Your task to perform on an android device: open wifi settings Image 0: 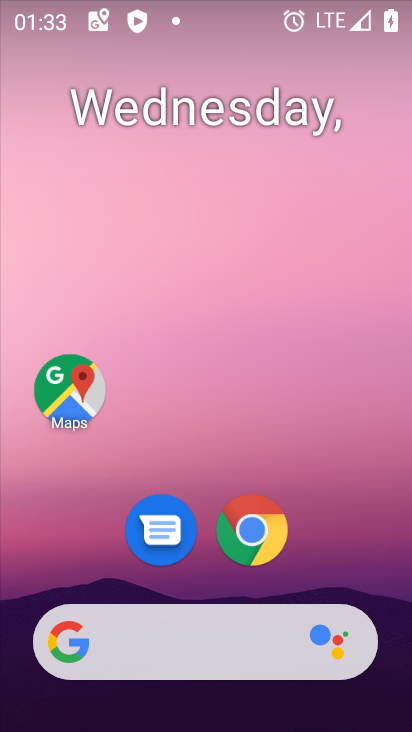
Step 0: drag from (368, 604) to (374, 115)
Your task to perform on an android device: open wifi settings Image 1: 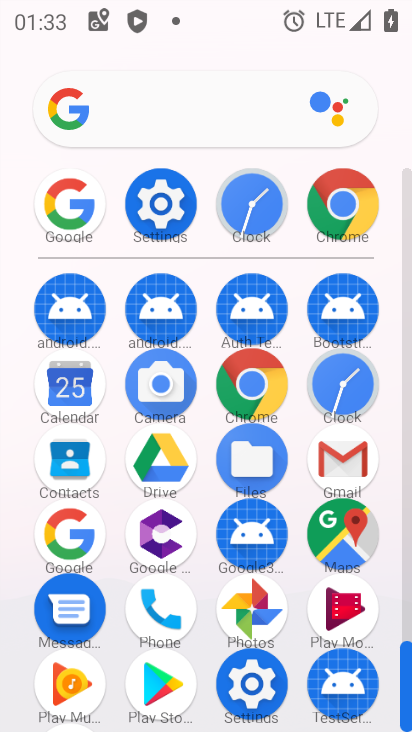
Step 1: click (188, 202)
Your task to perform on an android device: open wifi settings Image 2: 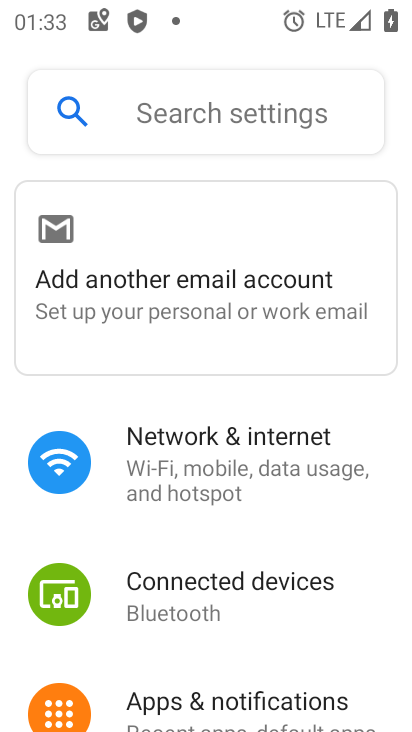
Step 2: click (204, 455)
Your task to perform on an android device: open wifi settings Image 3: 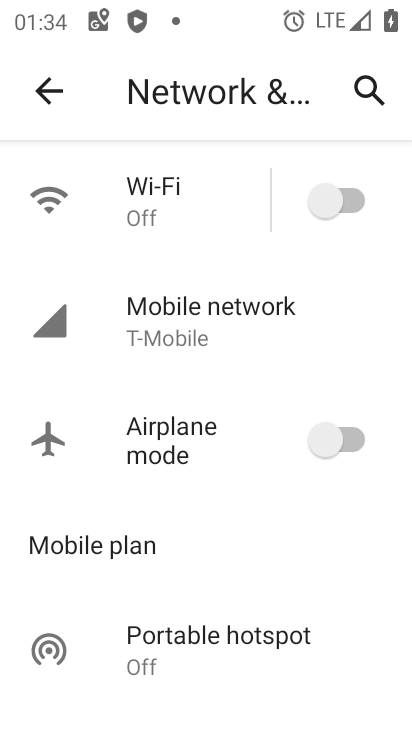
Step 3: task complete